Your task to perform on an android device: turn smart compose on in the gmail app Image 0: 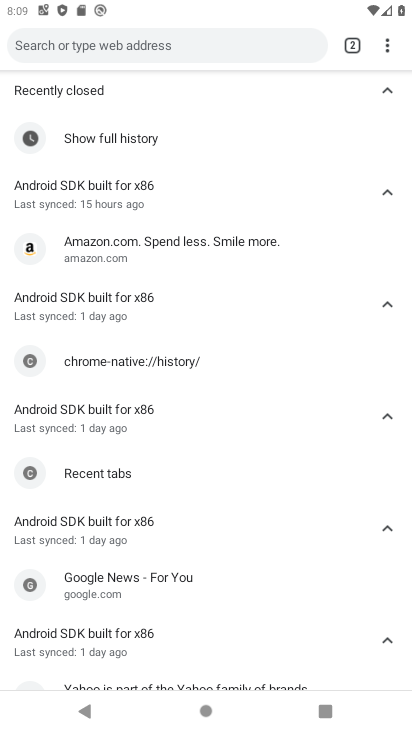
Step 0: press home button
Your task to perform on an android device: turn smart compose on in the gmail app Image 1: 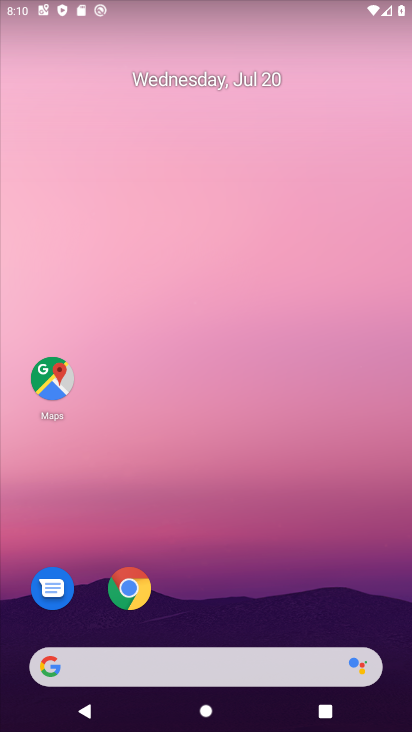
Step 1: drag from (264, 706) to (264, 169)
Your task to perform on an android device: turn smart compose on in the gmail app Image 2: 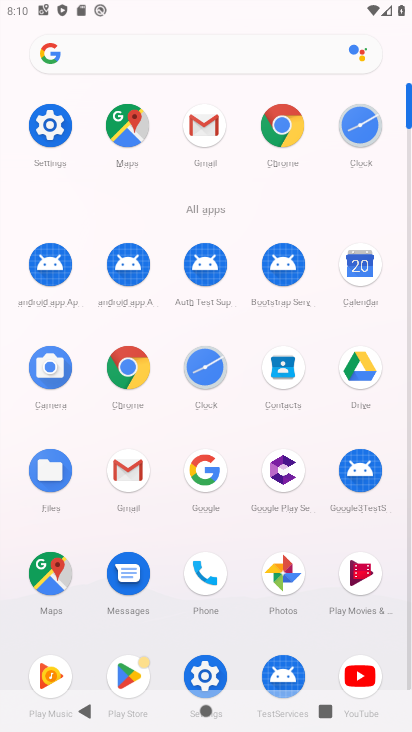
Step 2: click (204, 121)
Your task to perform on an android device: turn smart compose on in the gmail app Image 3: 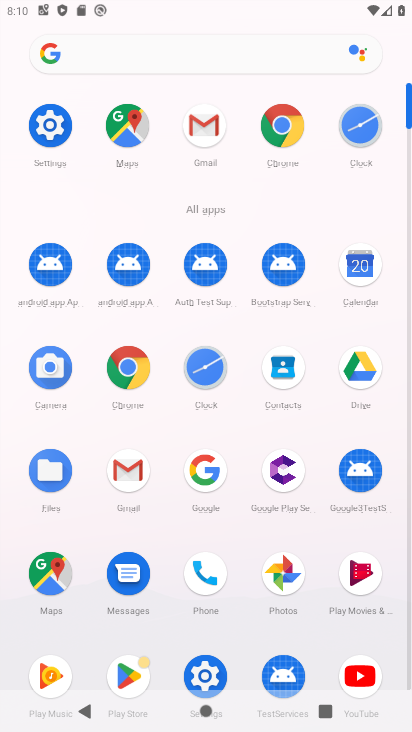
Step 3: click (204, 121)
Your task to perform on an android device: turn smart compose on in the gmail app Image 4: 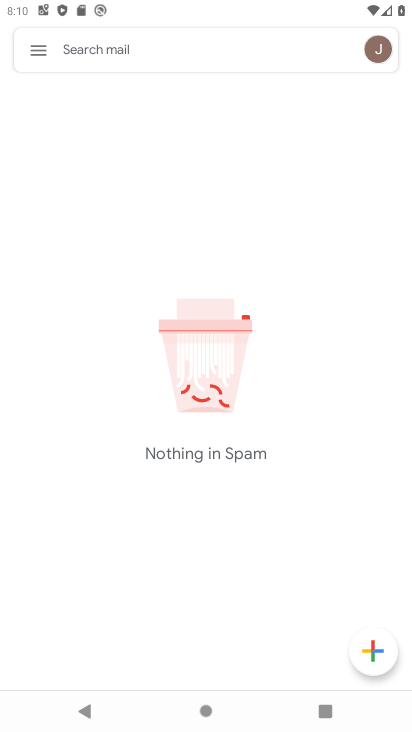
Step 4: click (30, 50)
Your task to perform on an android device: turn smart compose on in the gmail app Image 5: 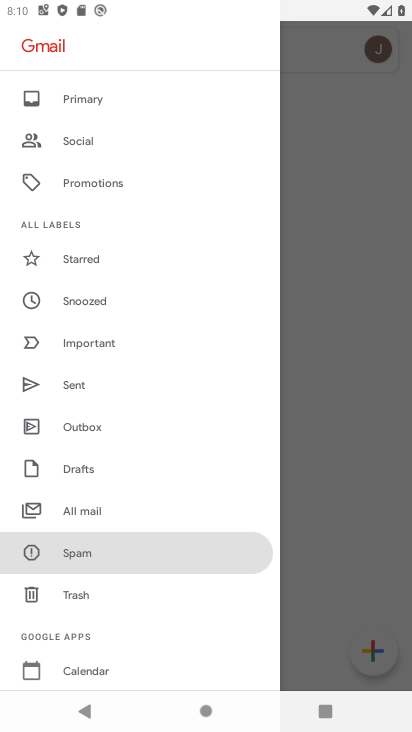
Step 5: drag from (131, 636) to (235, 13)
Your task to perform on an android device: turn smart compose on in the gmail app Image 6: 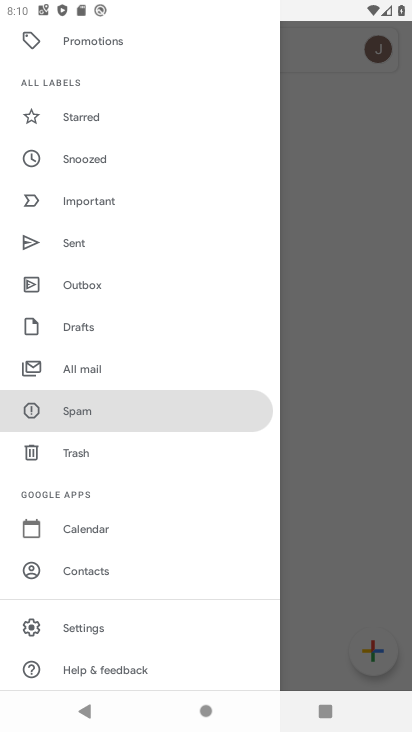
Step 6: click (128, 630)
Your task to perform on an android device: turn smart compose on in the gmail app Image 7: 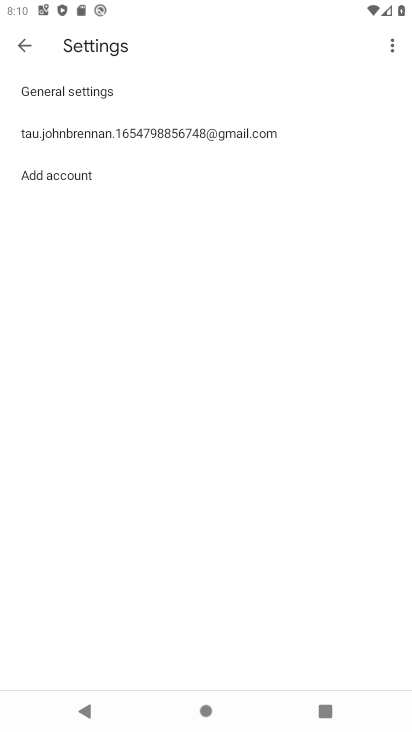
Step 7: click (150, 121)
Your task to perform on an android device: turn smart compose on in the gmail app Image 8: 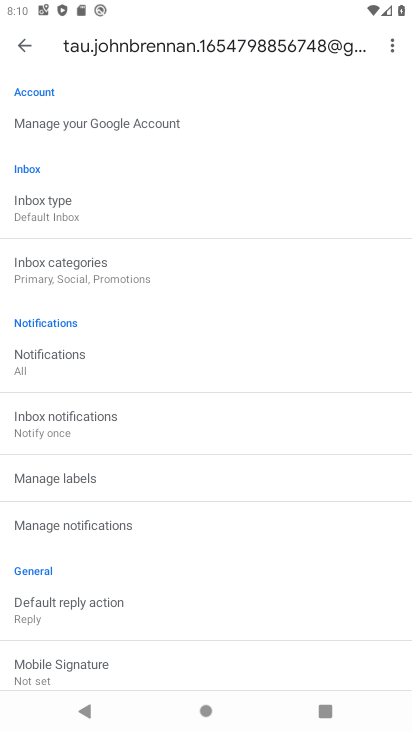
Step 8: task complete